Your task to perform on an android device: uninstall "Facebook Lite" Image 0: 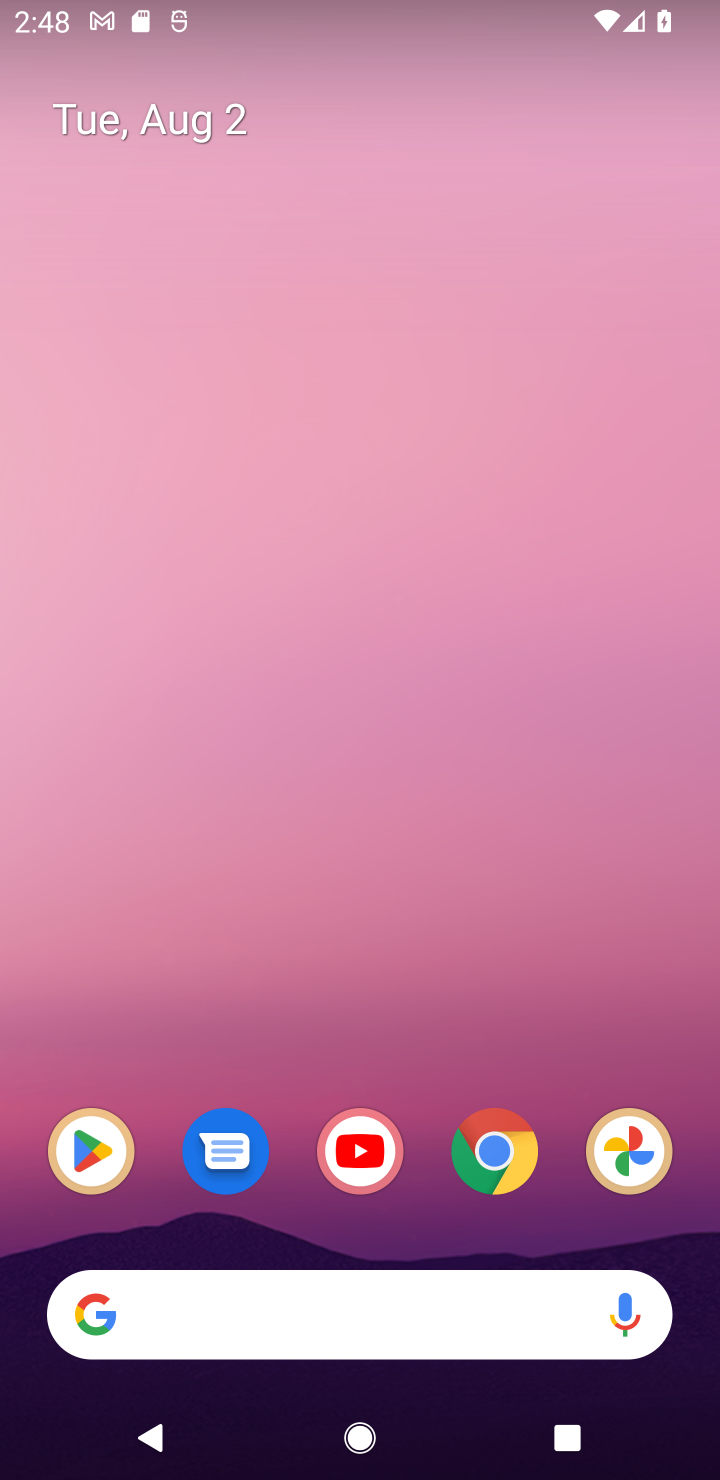
Step 0: click (73, 1146)
Your task to perform on an android device: uninstall "Facebook Lite" Image 1: 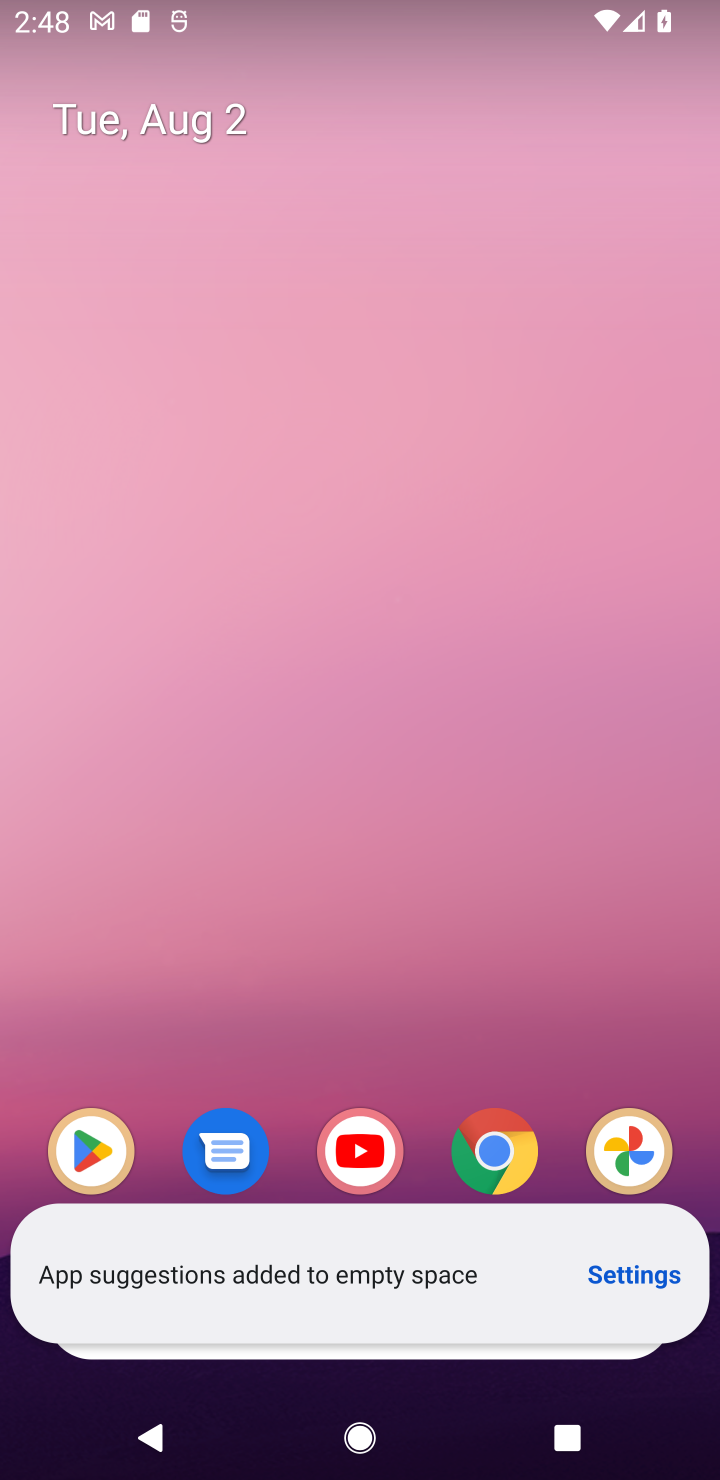
Step 1: click (109, 1157)
Your task to perform on an android device: uninstall "Facebook Lite" Image 2: 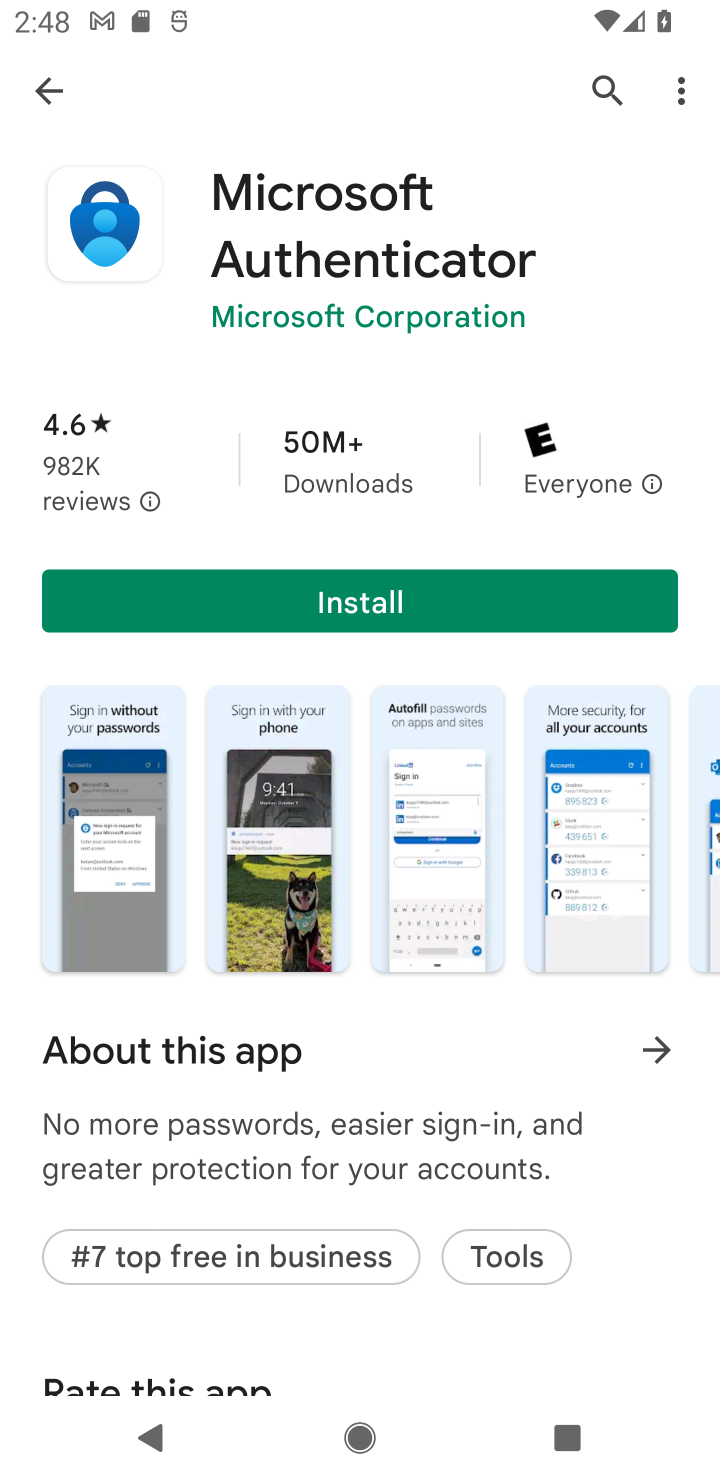
Step 2: press back button
Your task to perform on an android device: uninstall "Facebook Lite" Image 3: 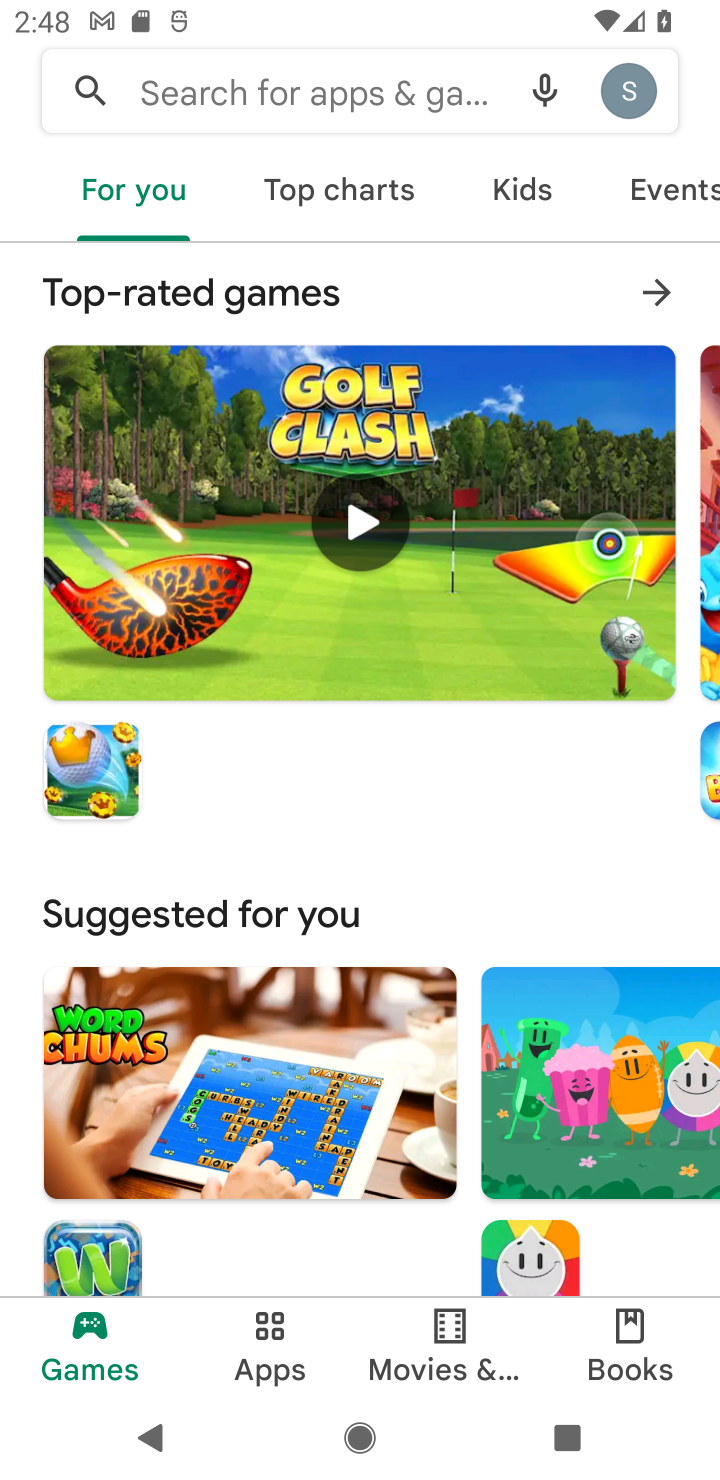
Step 3: click (273, 113)
Your task to perform on an android device: uninstall "Facebook Lite" Image 4: 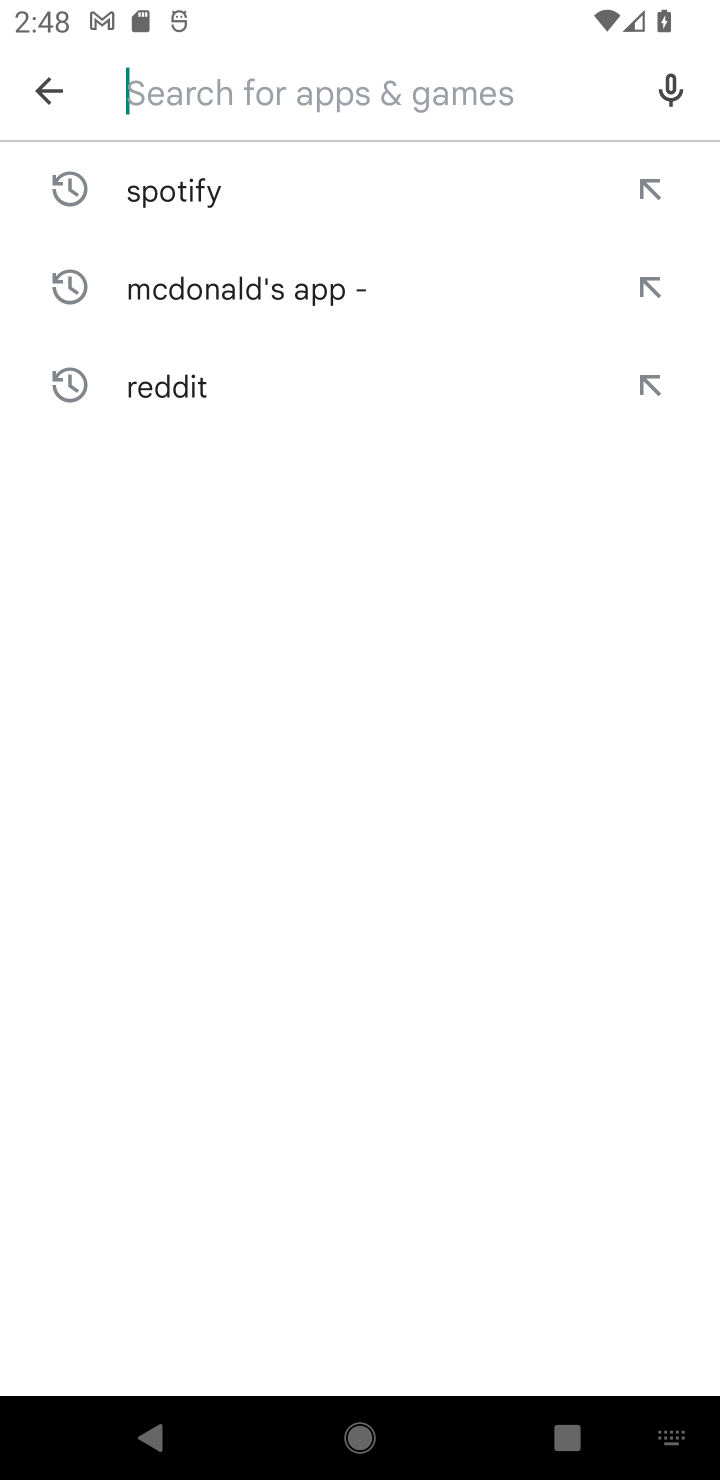
Step 4: type "Facebook lite"
Your task to perform on an android device: uninstall "Facebook Lite" Image 5: 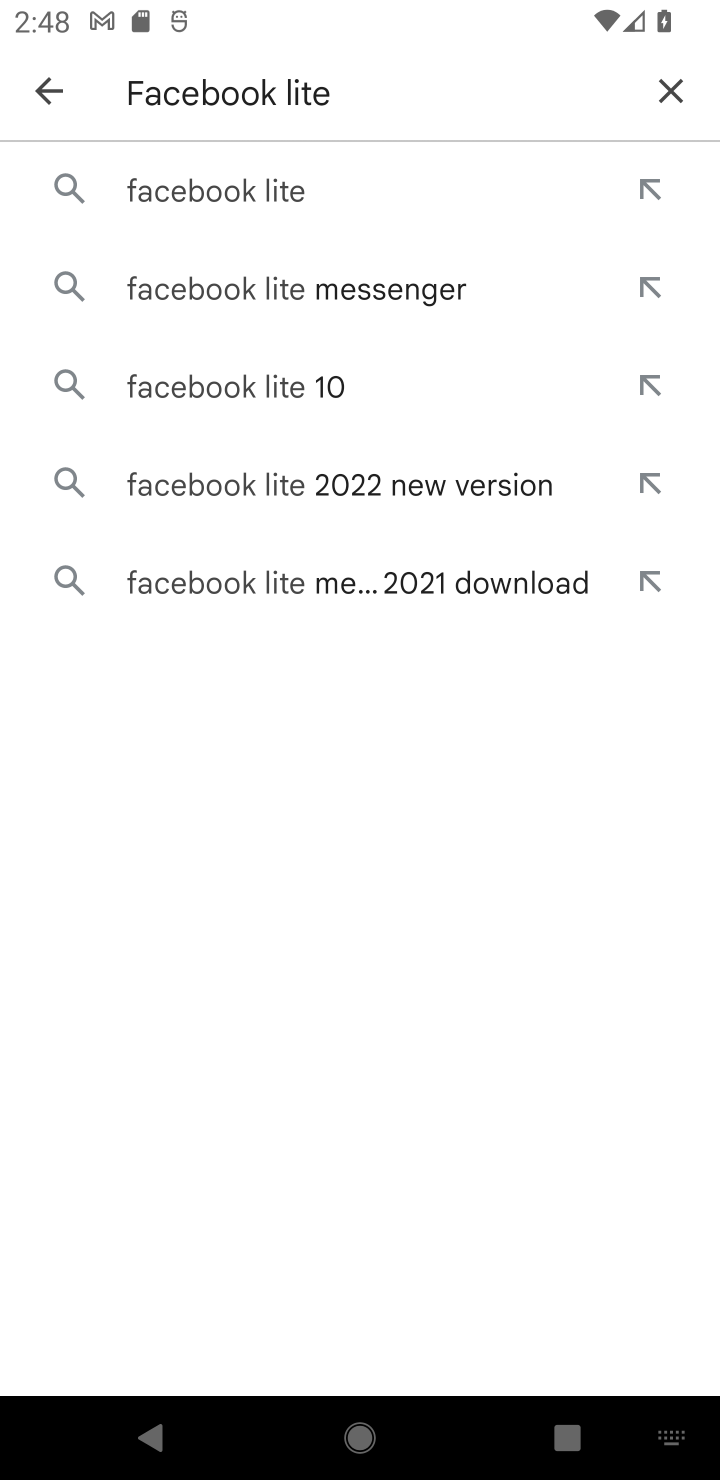
Step 5: click (399, 199)
Your task to perform on an android device: uninstall "Facebook Lite" Image 6: 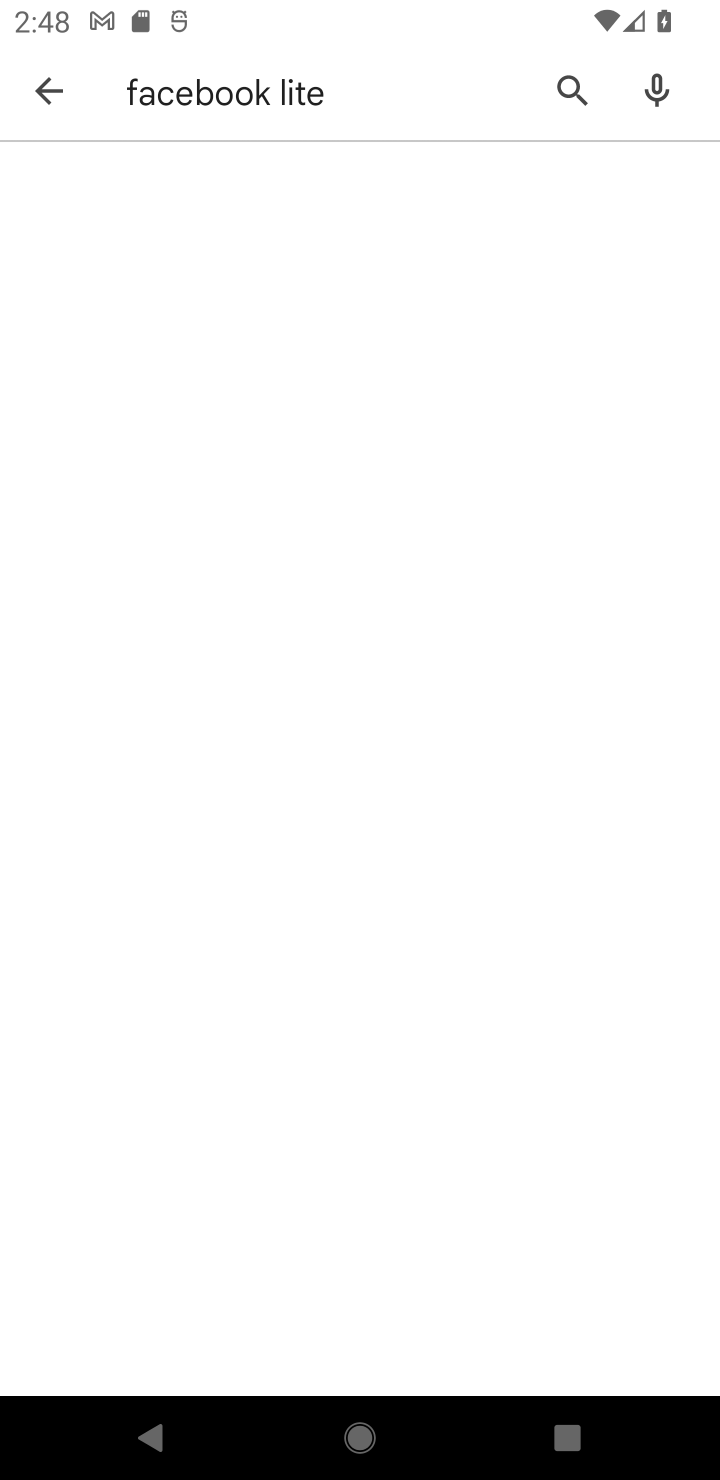
Step 6: click (264, 196)
Your task to perform on an android device: uninstall "Facebook Lite" Image 7: 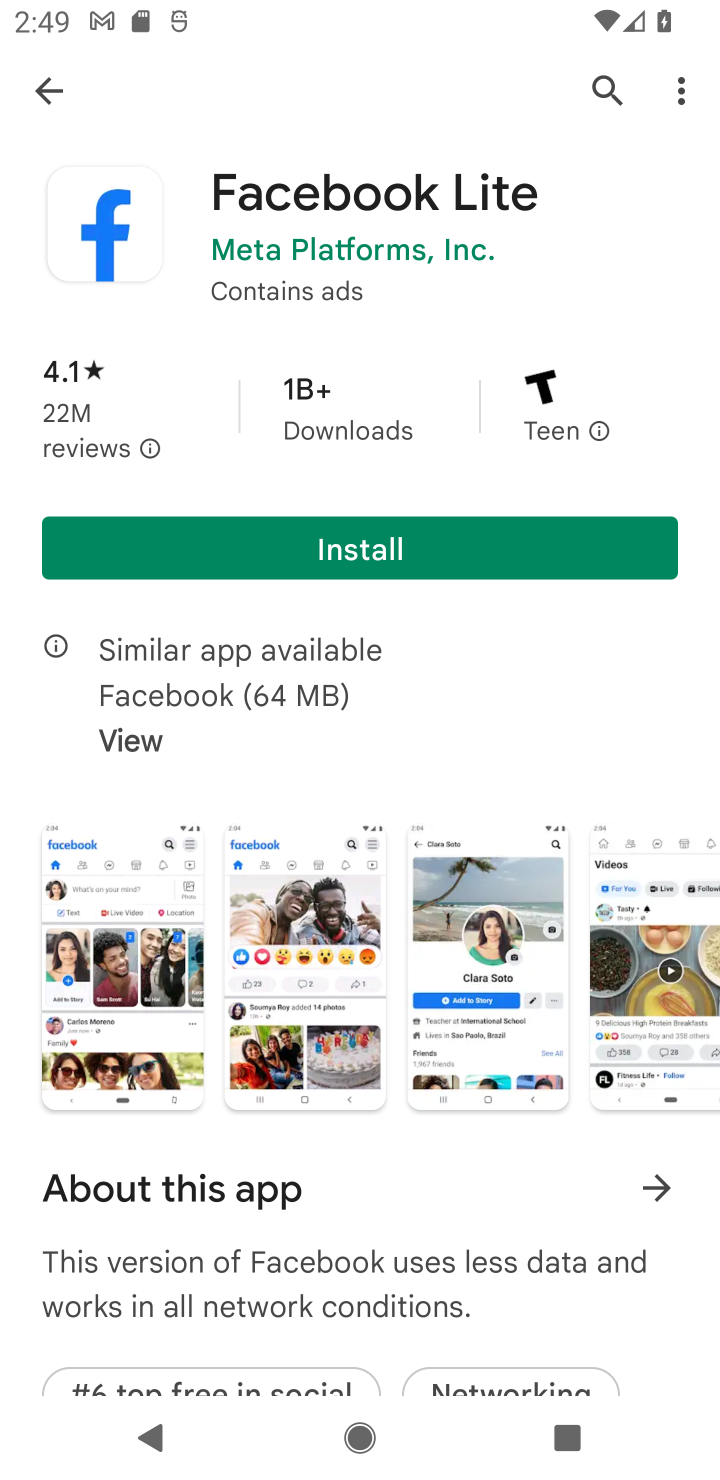
Step 7: task complete